Your task to perform on an android device: turn off improve location accuracy Image 0: 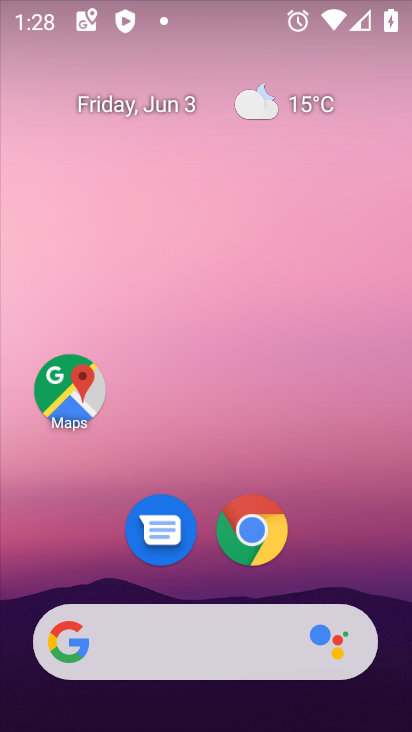
Step 0: drag from (357, 582) to (298, 95)
Your task to perform on an android device: turn off improve location accuracy Image 1: 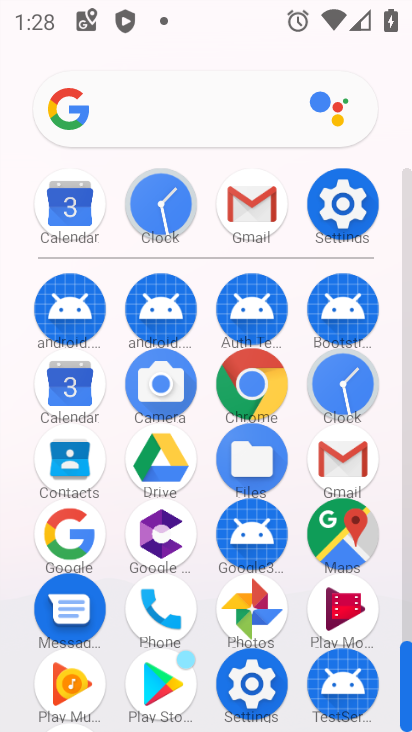
Step 1: click (345, 224)
Your task to perform on an android device: turn off improve location accuracy Image 2: 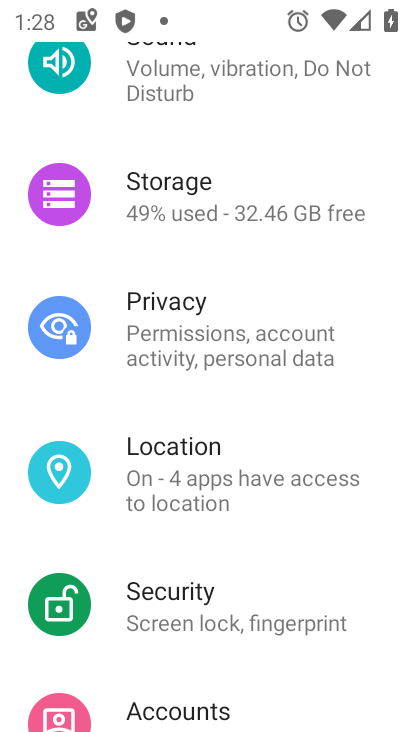
Step 2: click (265, 463)
Your task to perform on an android device: turn off improve location accuracy Image 3: 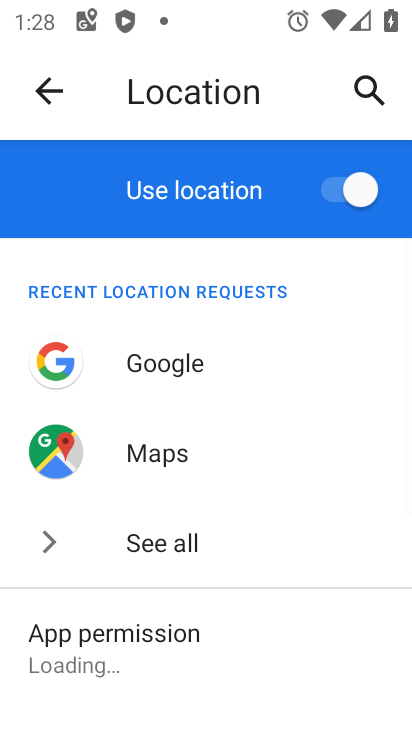
Step 3: drag from (290, 666) to (294, 224)
Your task to perform on an android device: turn off improve location accuracy Image 4: 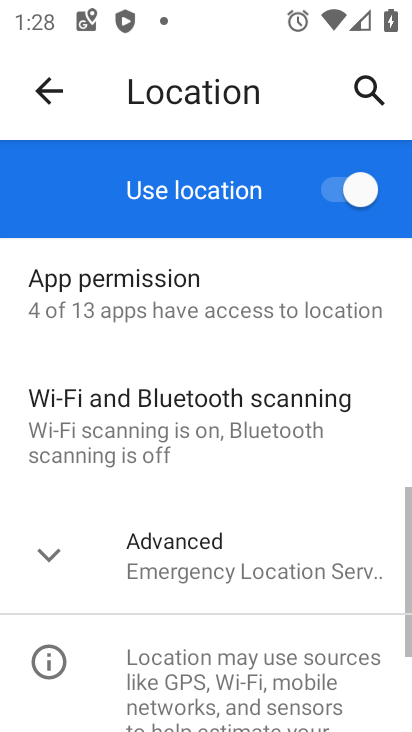
Step 4: click (54, 566)
Your task to perform on an android device: turn off improve location accuracy Image 5: 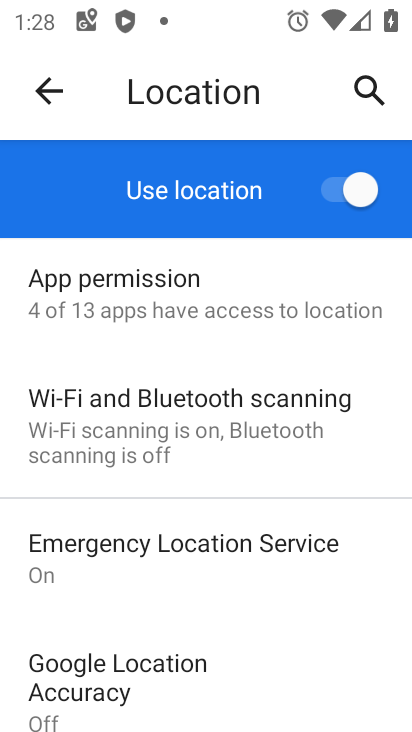
Step 5: drag from (372, 484) to (390, 284)
Your task to perform on an android device: turn off improve location accuracy Image 6: 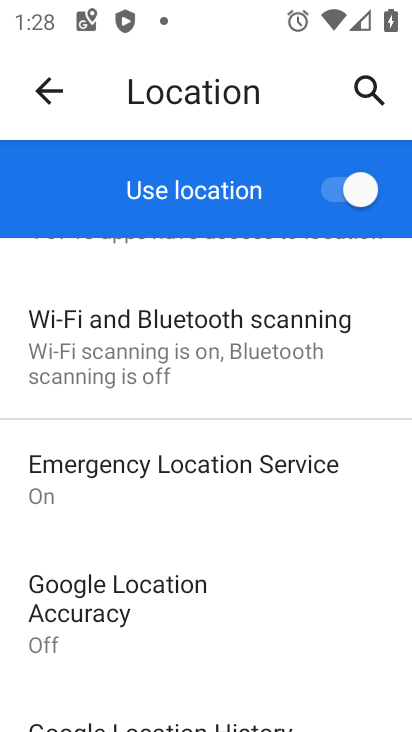
Step 6: click (123, 594)
Your task to perform on an android device: turn off improve location accuracy Image 7: 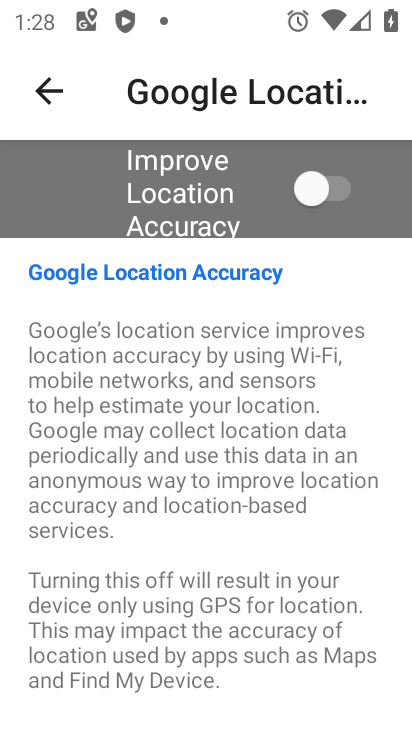
Step 7: task complete